Your task to perform on an android device: turn off improve location accuracy Image 0: 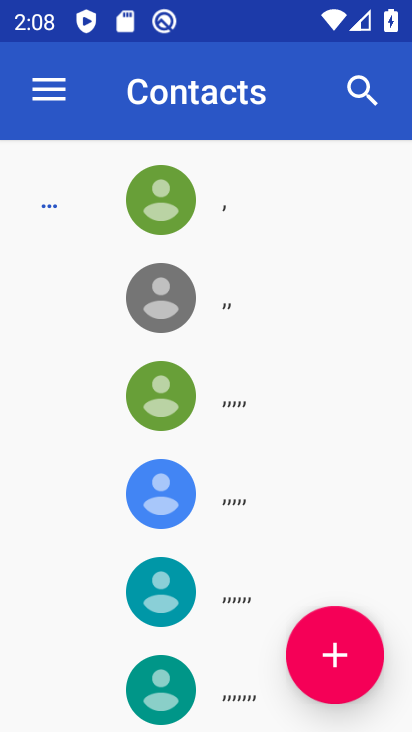
Step 0: press home button
Your task to perform on an android device: turn off improve location accuracy Image 1: 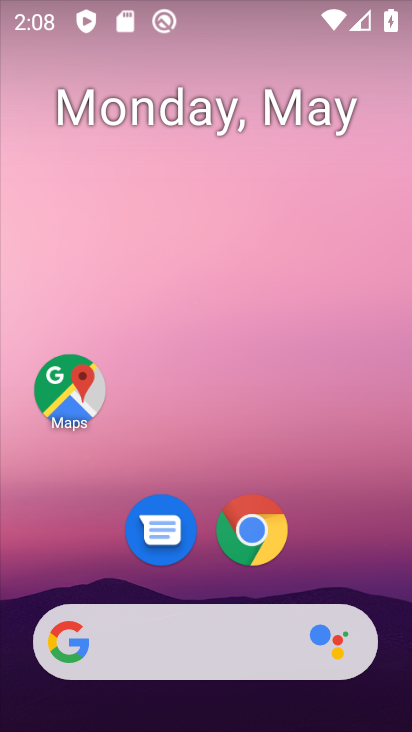
Step 1: drag from (220, 374) to (270, 181)
Your task to perform on an android device: turn off improve location accuracy Image 2: 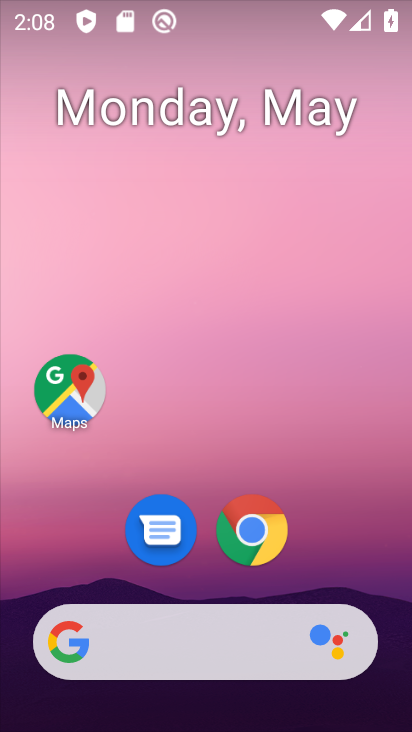
Step 2: drag from (322, 132) to (342, 26)
Your task to perform on an android device: turn off improve location accuracy Image 3: 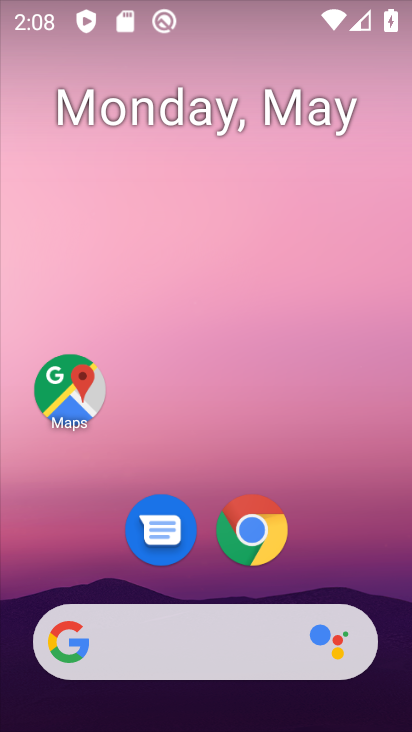
Step 3: drag from (266, 485) to (286, 48)
Your task to perform on an android device: turn off improve location accuracy Image 4: 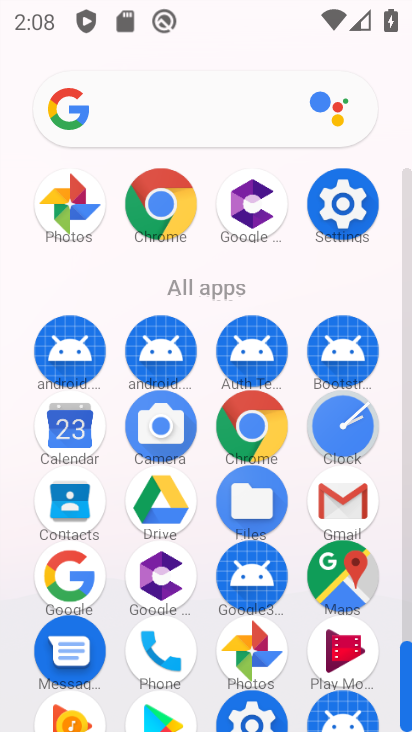
Step 4: click (348, 204)
Your task to perform on an android device: turn off improve location accuracy Image 5: 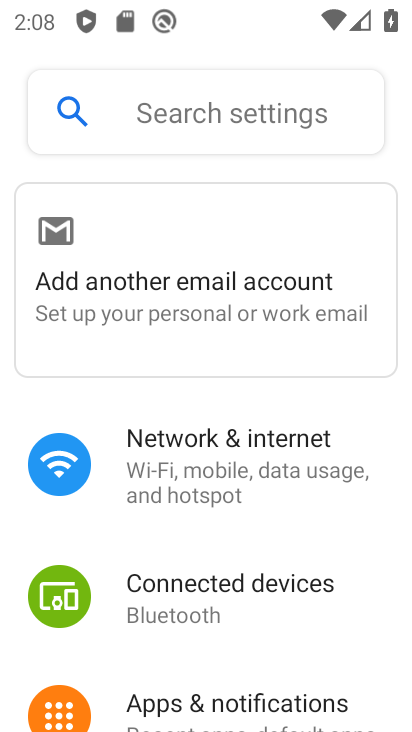
Step 5: drag from (184, 619) to (316, 96)
Your task to perform on an android device: turn off improve location accuracy Image 6: 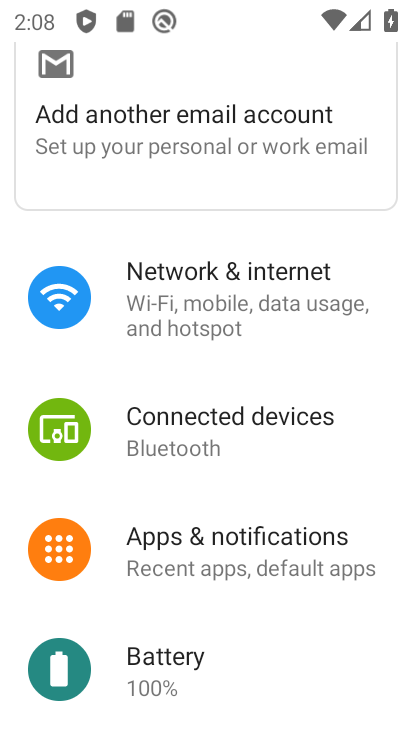
Step 6: drag from (255, 387) to (279, 79)
Your task to perform on an android device: turn off improve location accuracy Image 7: 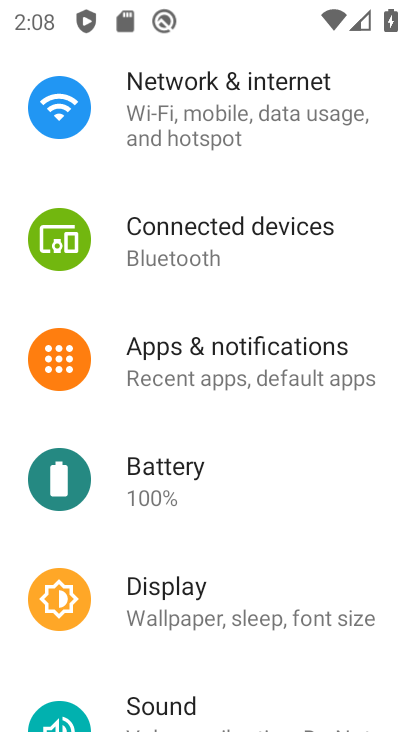
Step 7: drag from (224, 503) to (257, 64)
Your task to perform on an android device: turn off improve location accuracy Image 8: 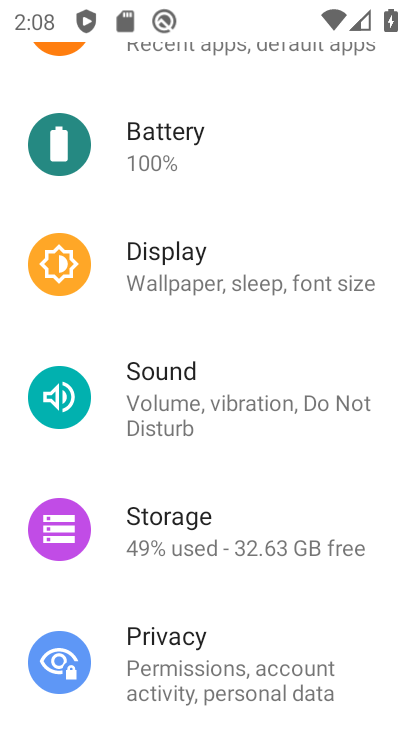
Step 8: drag from (188, 481) to (240, 43)
Your task to perform on an android device: turn off improve location accuracy Image 9: 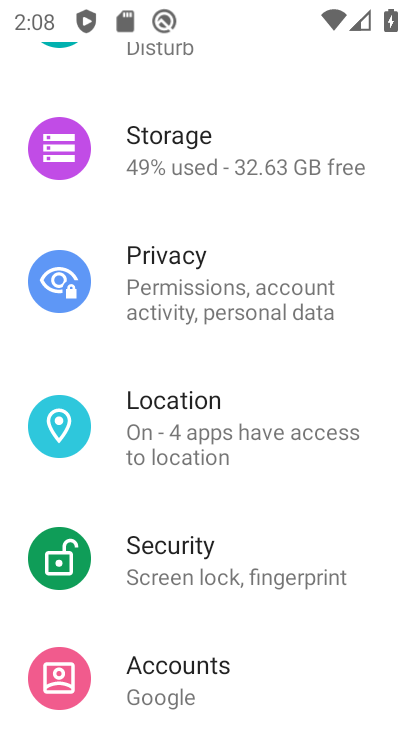
Step 9: click (218, 430)
Your task to perform on an android device: turn off improve location accuracy Image 10: 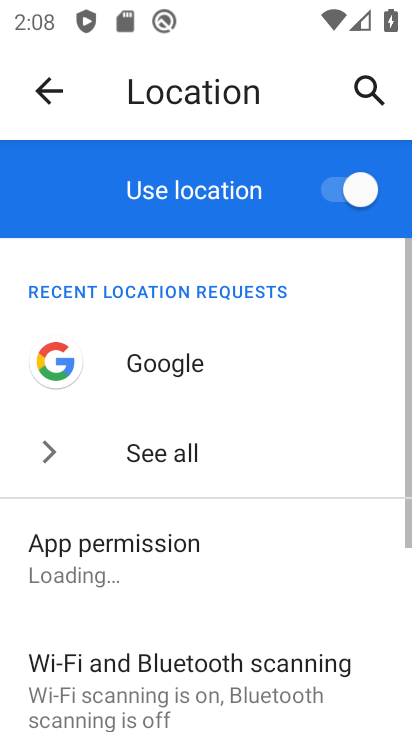
Step 10: drag from (109, 671) to (210, 165)
Your task to perform on an android device: turn off improve location accuracy Image 11: 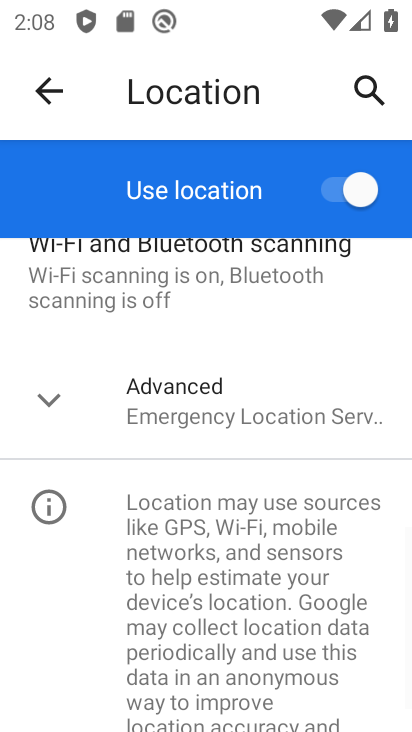
Step 11: click (224, 419)
Your task to perform on an android device: turn off improve location accuracy Image 12: 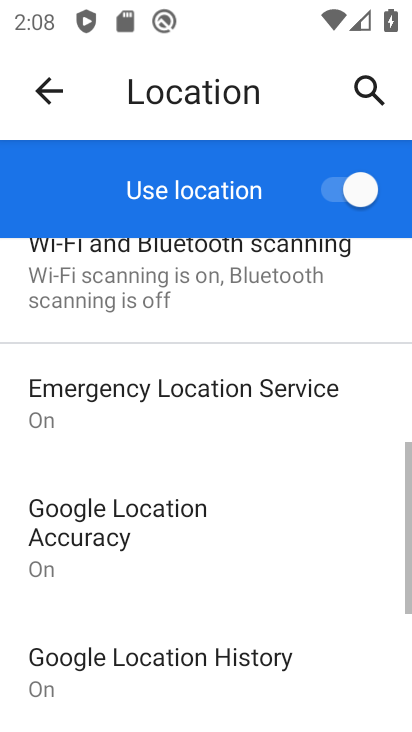
Step 12: click (121, 509)
Your task to perform on an android device: turn off improve location accuracy Image 13: 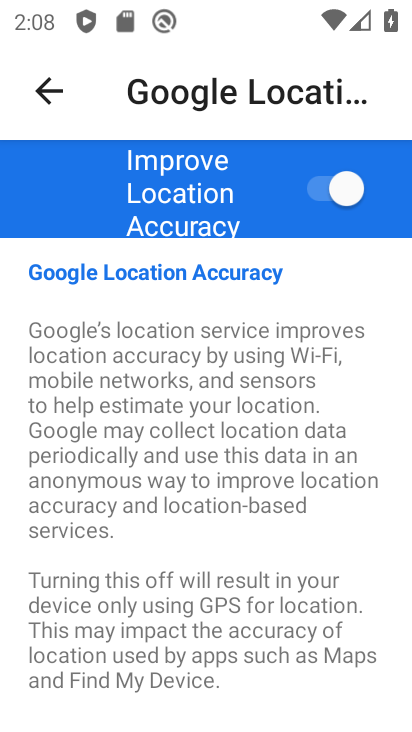
Step 13: click (326, 183)
Your task to perform on an android device: turn off improve location accuracy Image 14: 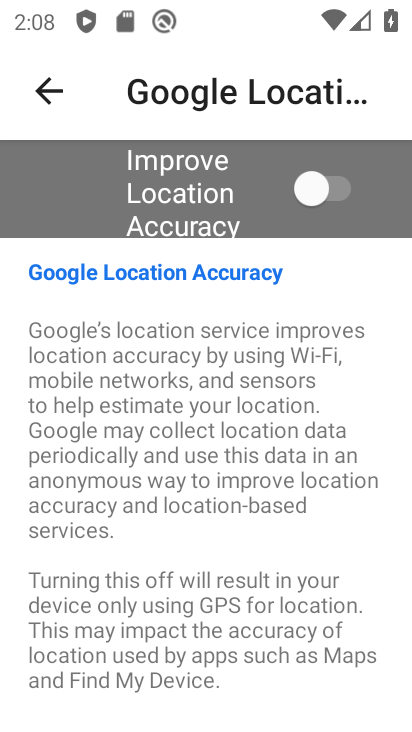
Step 14: task complete